Your task to perform on an android device: Open the calendar app, open the side menu, and click the "Day" option Image 0: 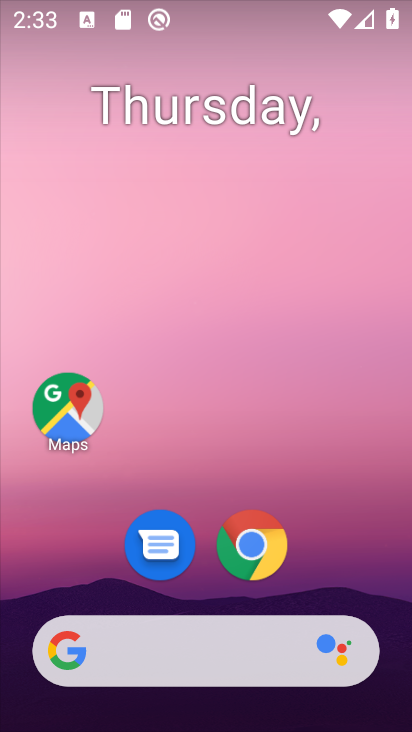
Step 0: drag from (126, 657) to (339, 54)
Your task to perform on an android device: Open the calendar app, open the side menu, and click the "Day" option Image 1: 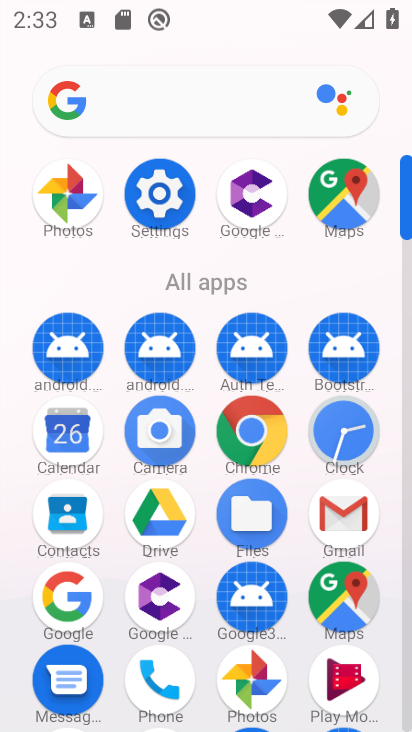
Step 1: click (65, 442)
Your task to perform on an android device: Open the calendar app, open the side menu, and click the "Day" option Image 2: 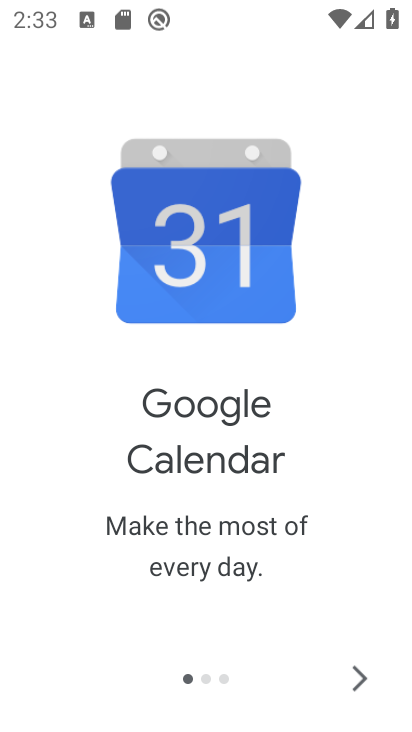
Step 2: click (358, 677)
Your task to perform on an android device: Open the calendar app, open the side menu, and click the "Day" option Image 3: 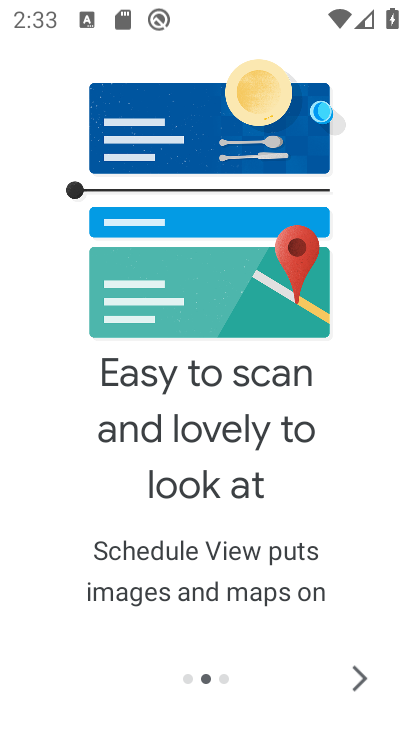
Step 3: click (358, 677)
Your task to perform on an android device: Open the calendar app, open the side menu, and click the "Day" option Image 4: 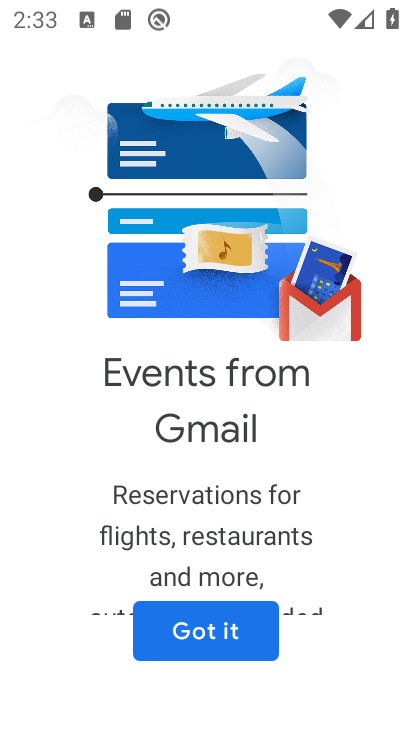
Step 4: click (358, 677)
Your task to perform on an android device: Open the calendar app, open the side menu, and click the "Day" option Image 5: 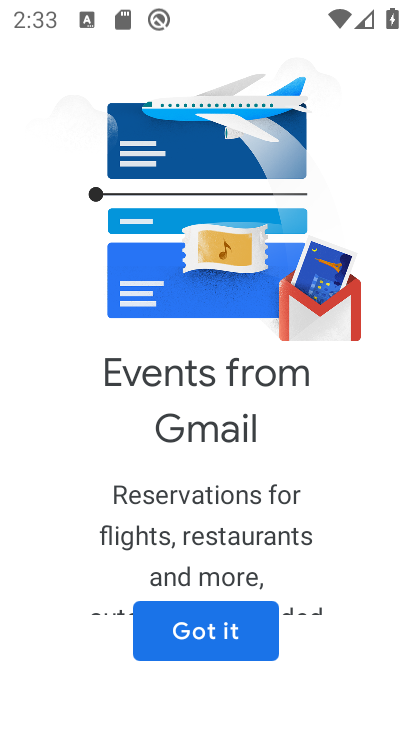
Step 5: click (230, 638)
Your task to perform on an android device: Open the calendar app, open the side menu, and click the "Day" option Image 6: 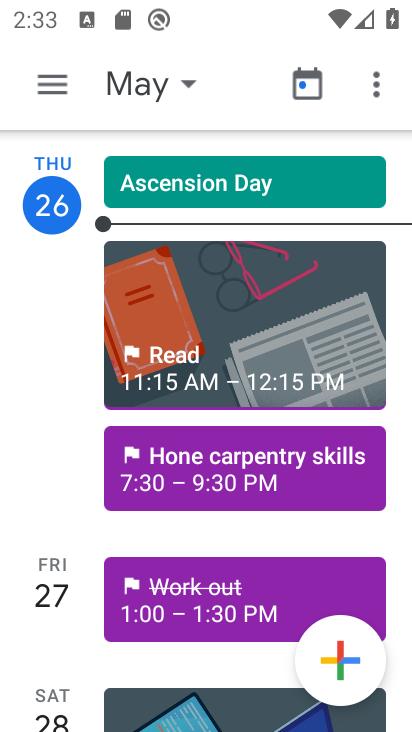
Step 6: click (56, 83)
Your task to perform on an android device: Open the calendar app, open the side menu, and click the "Day" option Image 7: 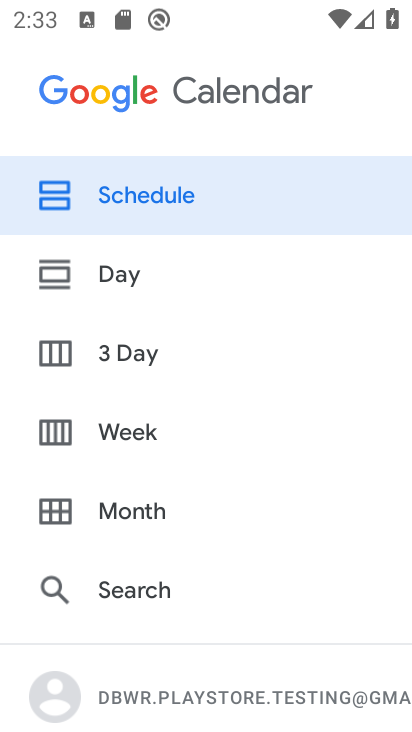
Step 7: click (175, 274)
Your task to perform on an android device: Open the calendar app, open the side menu, and click the "Day" option Image 8: 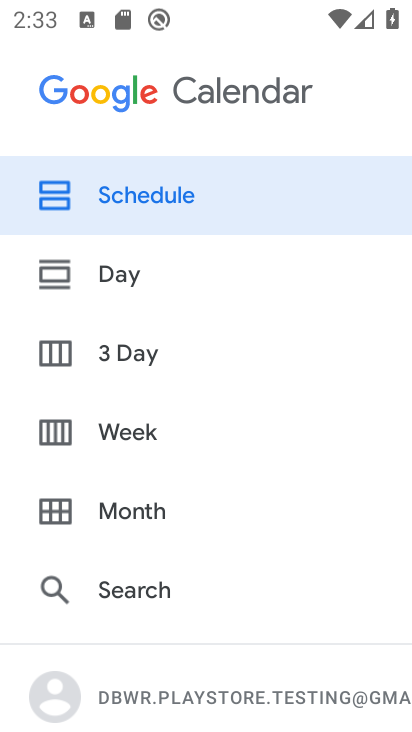
Step 8: click (125, 262)
Your task to perform on an android device: Open the calendar app, open the side menu, and click the "Day" option Image 9: 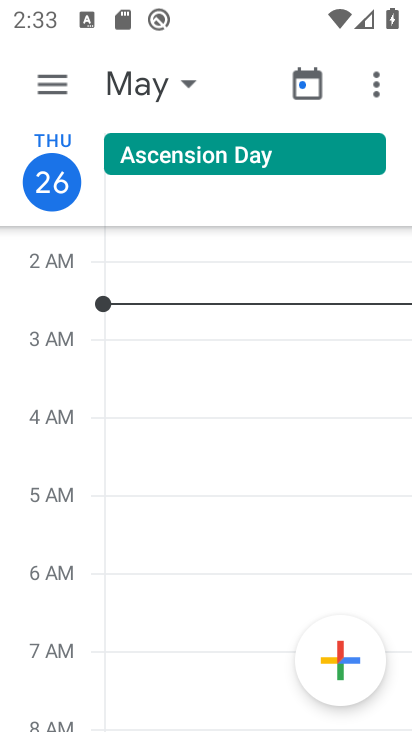
Step 9: task complete